Your task to perform on an android device: toggle data saver in the chrome app Image 0: 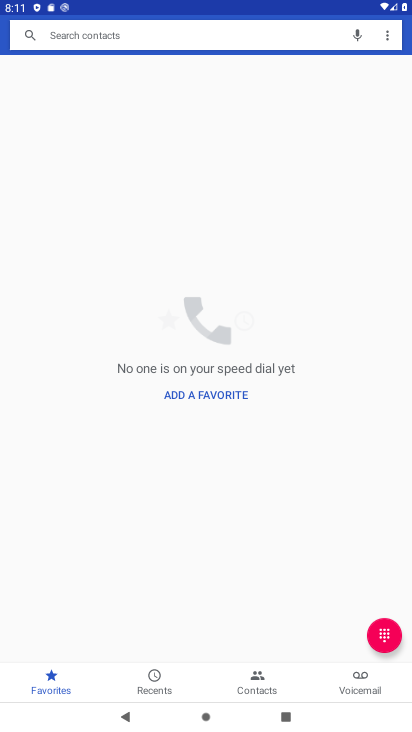
Step 0: press home button
Your task to perform on an android device: toggle data saver in the chrome app Image 1: 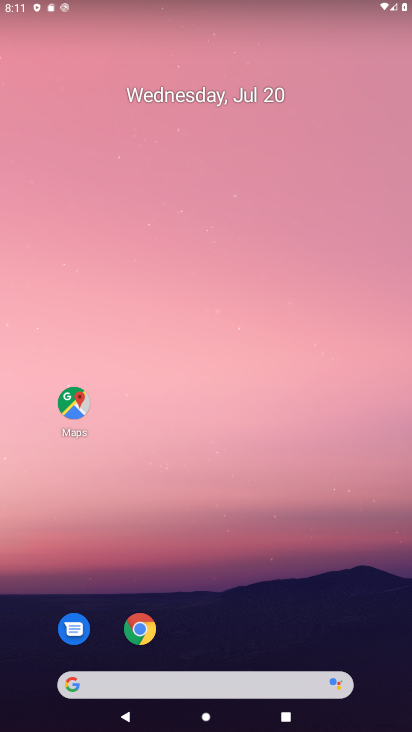
Step 1: click (135, 637)
Your task to perform on an android device: toggle data saver in the chrome app Image 2: 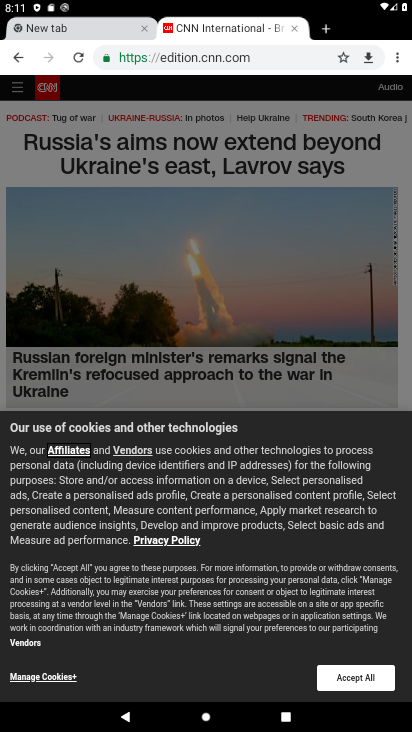
Step 2: click (400, 55)
Your task to perform on an android device: toggle data saver in the chrome app Image 3: 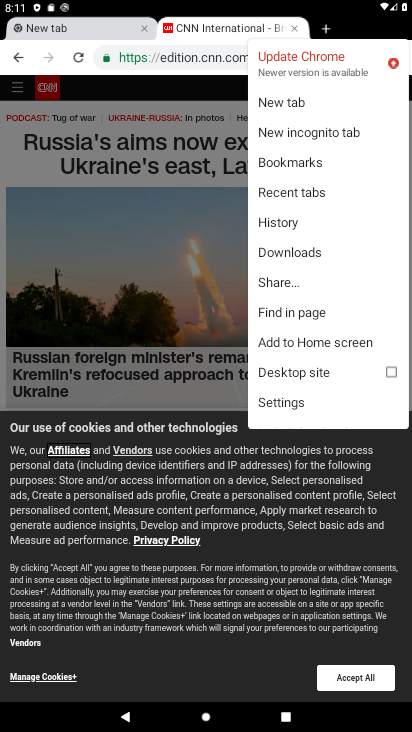
Step 3: click (301, 411)
Your task to perform on an android device: toggle data saver in the chrome app Image 4: 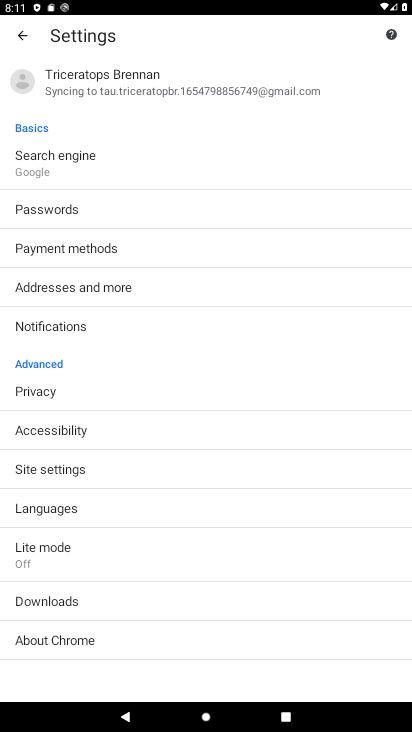
Step 4: click (87, 544)
Your task to perform on an android device: toggle data saver in the chrome app Image 5: 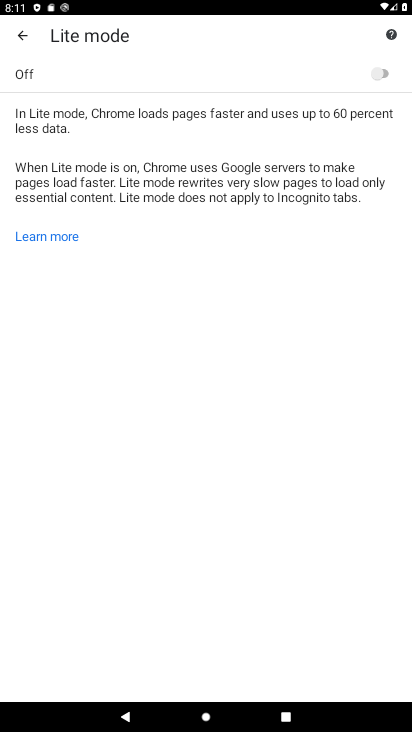
Step 5: click (392, 65)
Your task to perform on an android device: toggle data saver in the chrome app Image 6: 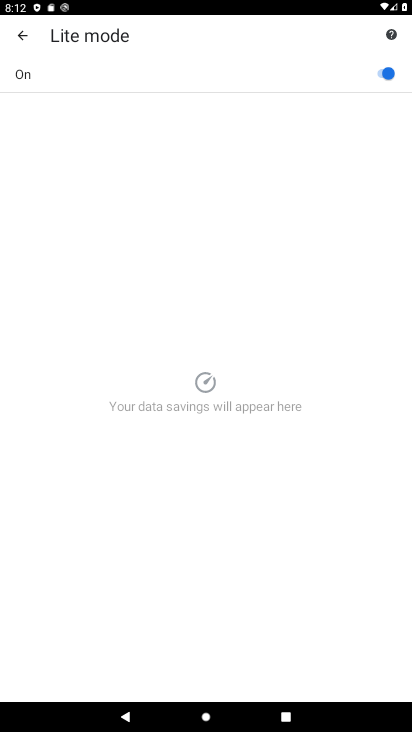
Step 6: task complete